Your task to perform on an android device: toggle airplane mode Image 0: 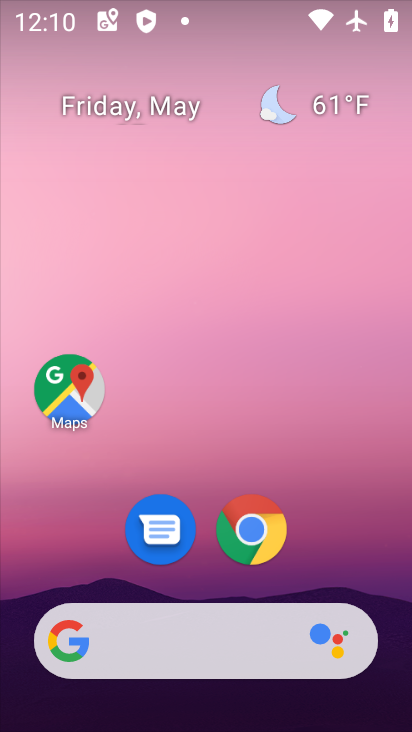
Step 0: drag from (370, 563) to (313, 91)
Your task to perform on an android device: toggle airplane mode Image 1: 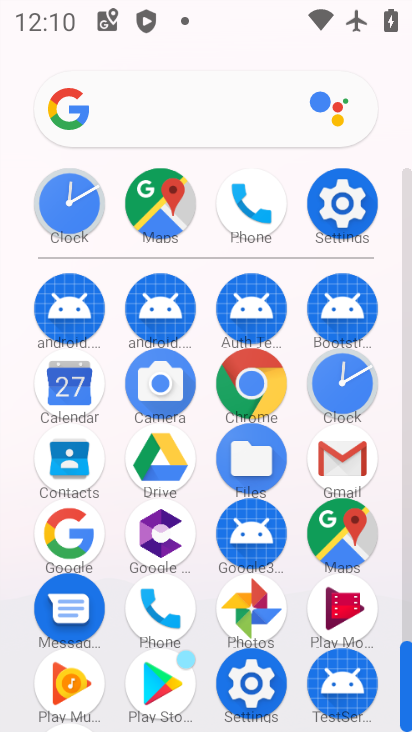
Step 1: click (338, 189)
Your task to perform on an android device: toggle airplane mode Image 2: 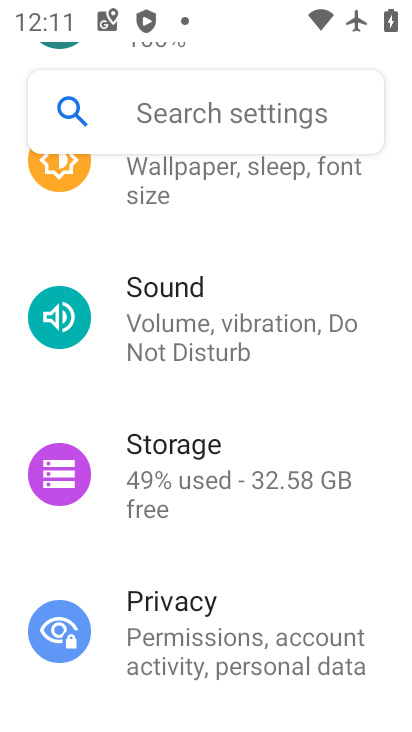
Step 2: drag from (248, 676) to (296, 703)
Your task to perform on an android device: toggle airplane mode Image 3: 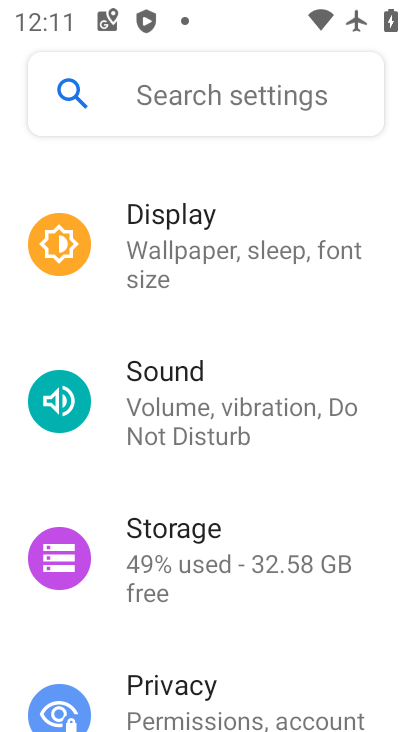
Step 3: drag from (268, 343) to (412, 711)
Your task to perform on an android device: toggle airplane mode Image 4: 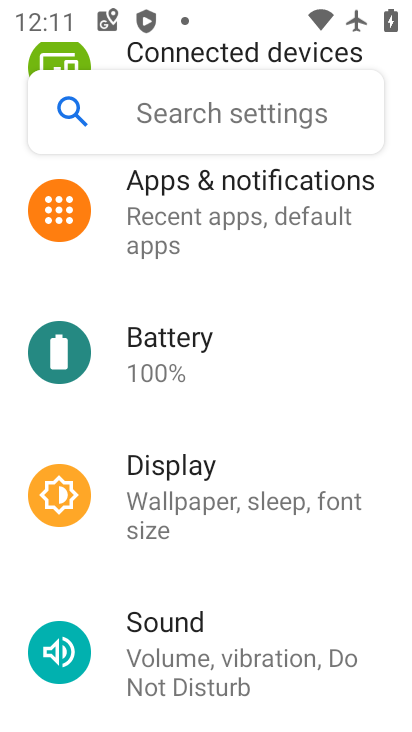
Step 4: drag from (222, 357) to (182, 729)
Your task to perform on an android device: toggle airplane mode Image 5: 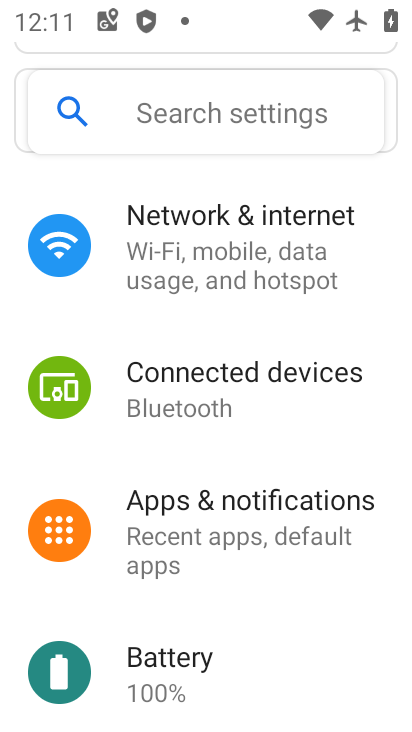
Step 5: click (208, 251)
Your task to perform on an android device: toggle airplane mode Image 6: 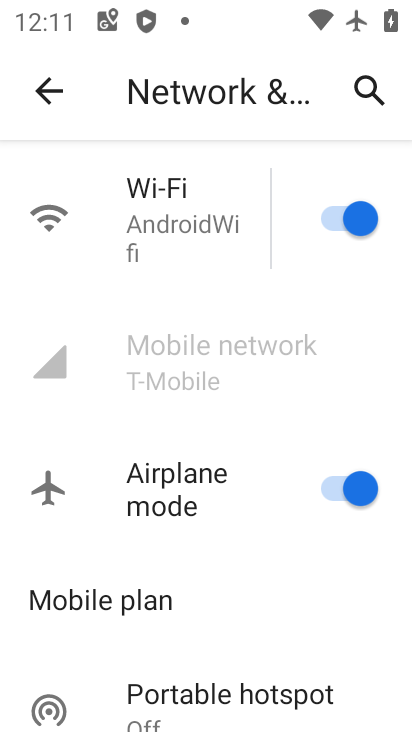
Step 6: click (319, 559)
Your task to perform on an android device: toggle airplane mode Image 7: 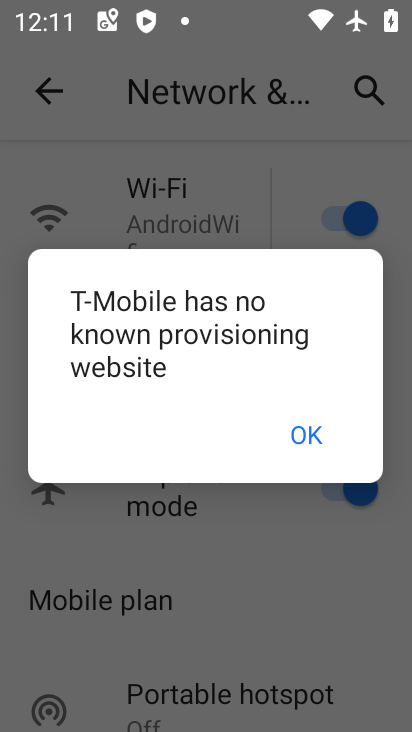
Step 7: task complete